Your task to perform on an android device: toggle show notifications on the lock screen Image 0: 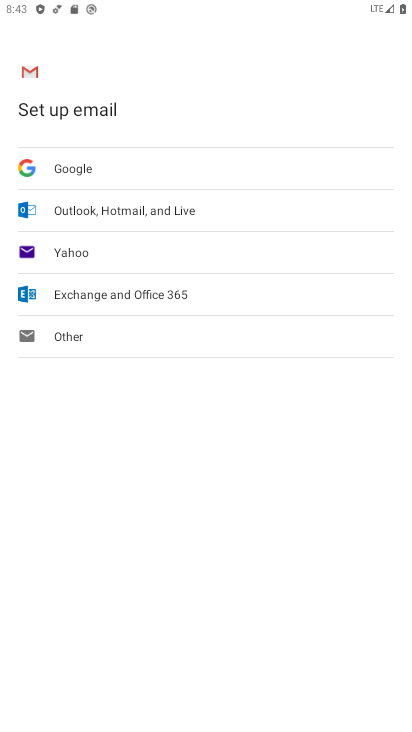
Step 0: press home button
Your task to perform on an android device: toggle show notifications on the lock screen Image 1: 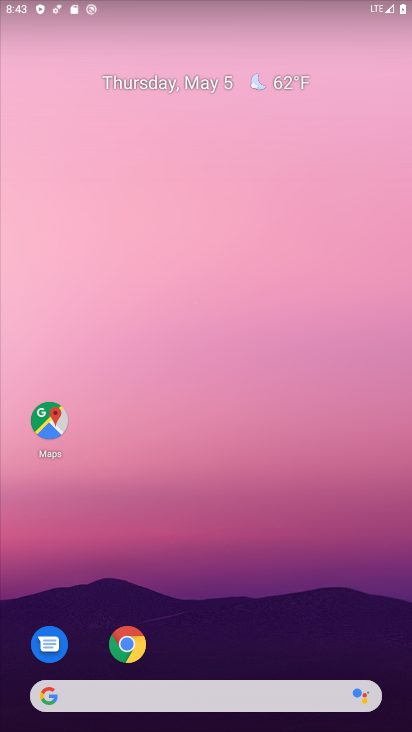
Step 1: drag from (284, 572) to (258, 30)
Your task to perform on an android device: toggle show notifications on the lock screen Image 2: 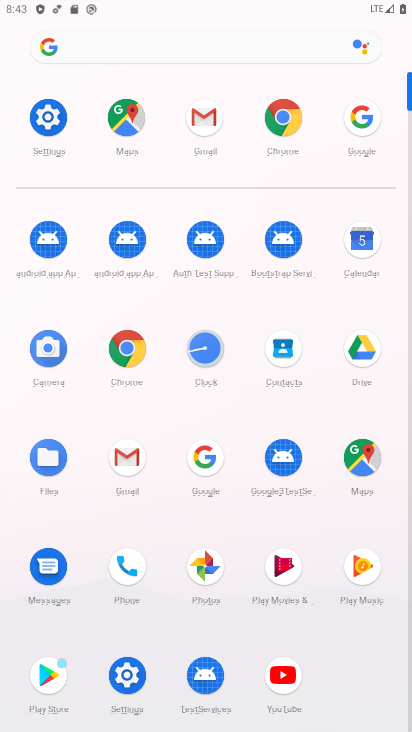
Step 2: click (35, 121)
Your task to perform on an android device: toggle show notifications on the lock screen Image 3: 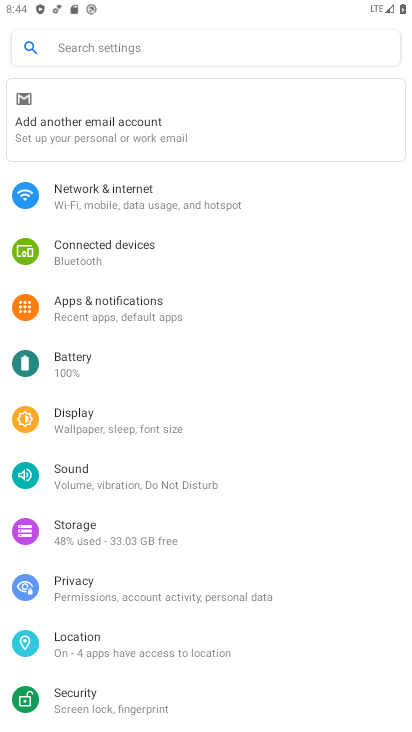
Step 3: click (115, 310)
Your task to perform on an android device: toggle show notifications on the lock screen Image 4: 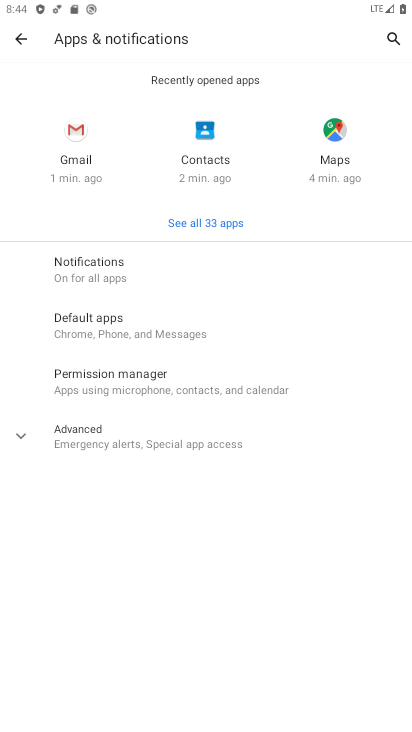
Step 4: click (86, 271)
Your task to perform on an android device: toggle show notifications on the lock screen Image 5: 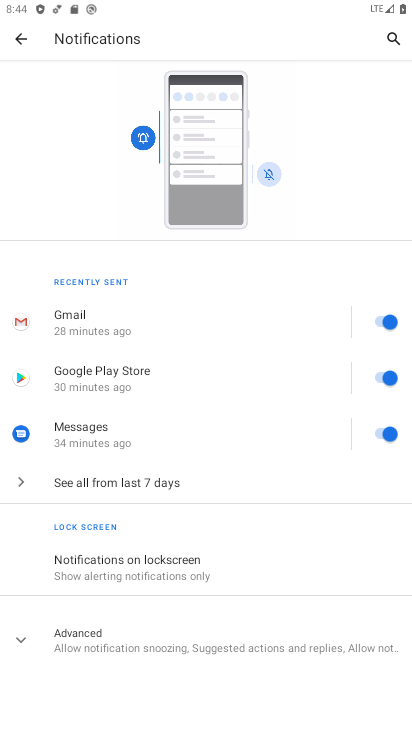
Step 5: click (129, 568)
Your task to perform on an android device: toggle show notifications on the lock screen Image 6: 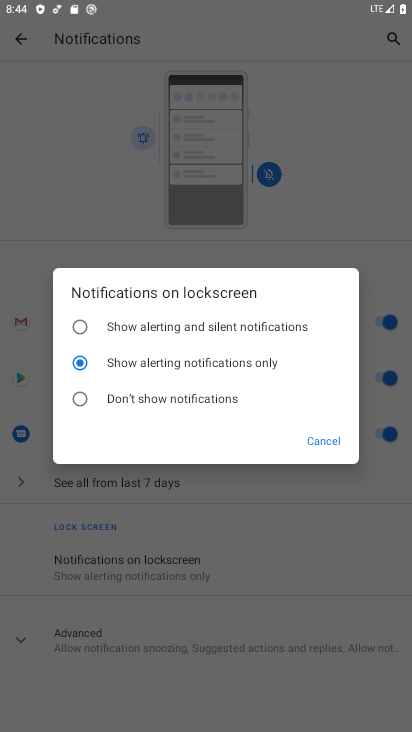
Step 6: click (72, 329)
Your task to perform on an android device: toggle show notifications on the lock screen Image 7: 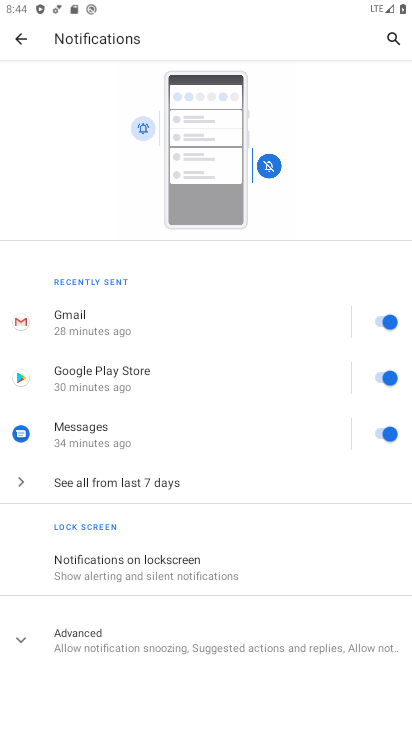
Step 7: task complete